Your task to perform on an android device: turn on data saver in the chrome app Image 0: 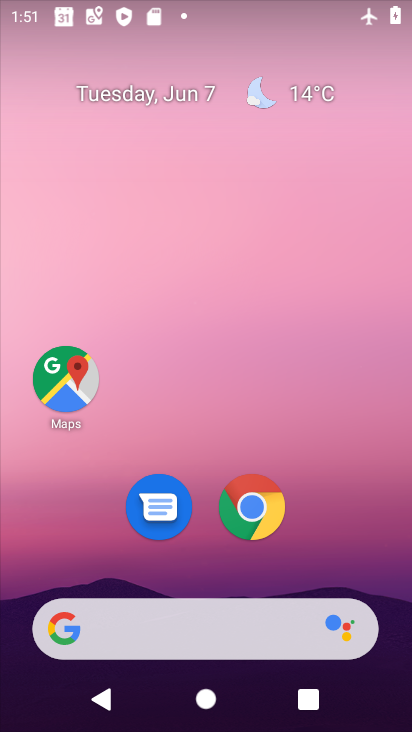
Step 0: click (249, 507)
Your task to perform on an android device: turn on data saver in the chrome app Image 1: 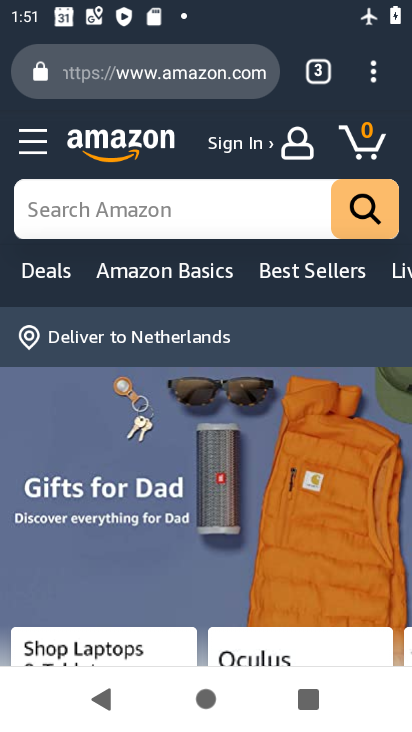
Step 1: click (372, 73)
Your task to perform on an android device: turn on data saver in the chrome app Image 2: 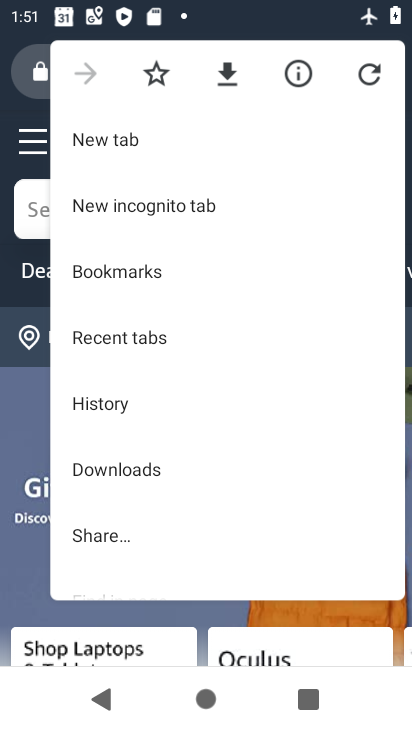
Step 2: drag from (200, 514) to (231, 162)
Your task to perform on an android device: turn on data saver in the chrome app Image 3: 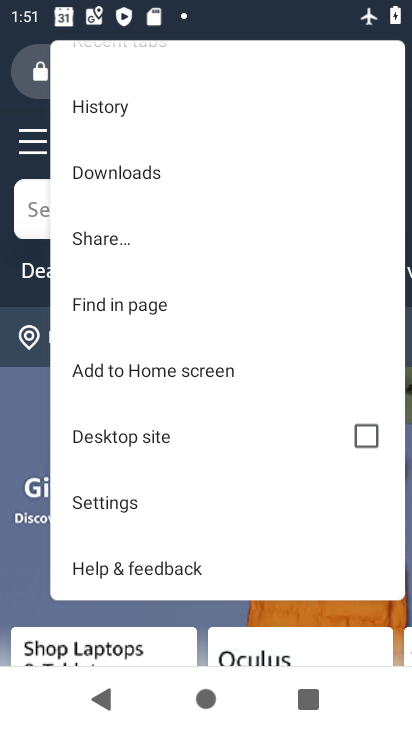
Step 3: click (102, 506)
Your task to perform on an android device: turn on data saver in the chrome app Image 4: 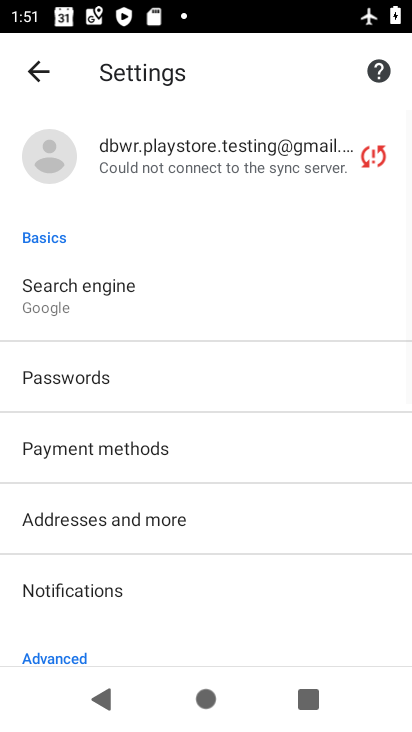
Step 4: drag from (204, 615) to (211, 247)
Your task to perform on an android device: turn on data saver in the chrome app Image 5: 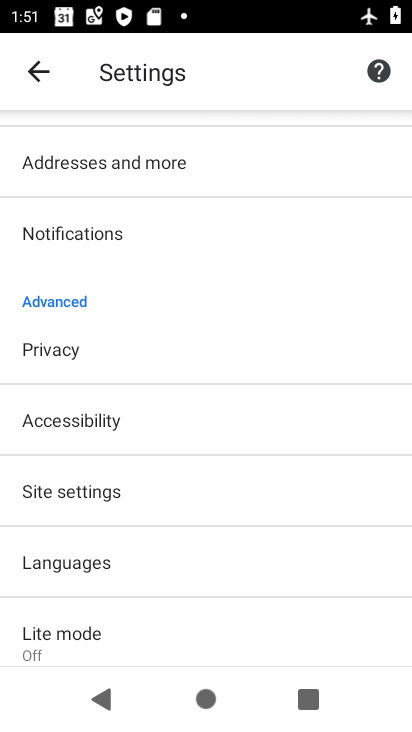
Step 5: drag from (157, 598) to (139, 392)
Your task to perform on an android device: turn on data saver in the chrome app Image 6: 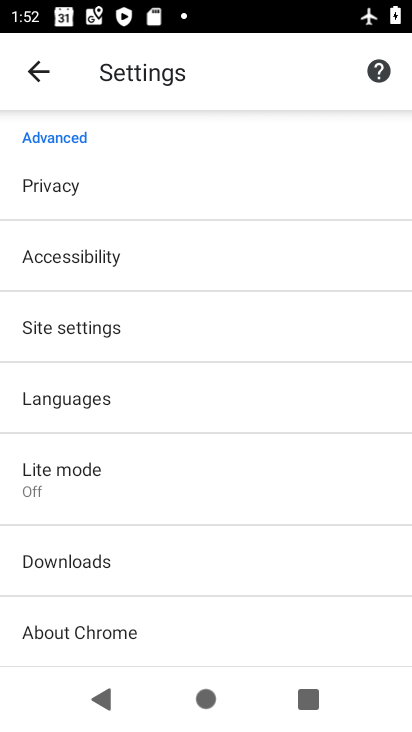
Step 6: click (50, 470)
Your task to perform on an android device: turn on data saver in the chrome app Image 7: 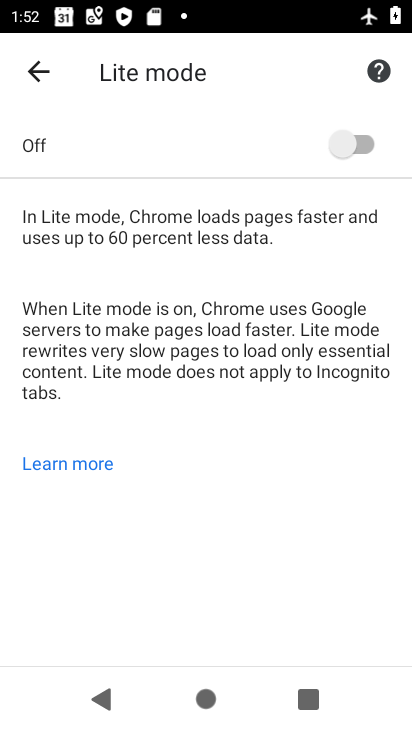
Step 7: click (368, 140)
Your task to perform on an android device: turn on data saver in the chrome app Image 8: 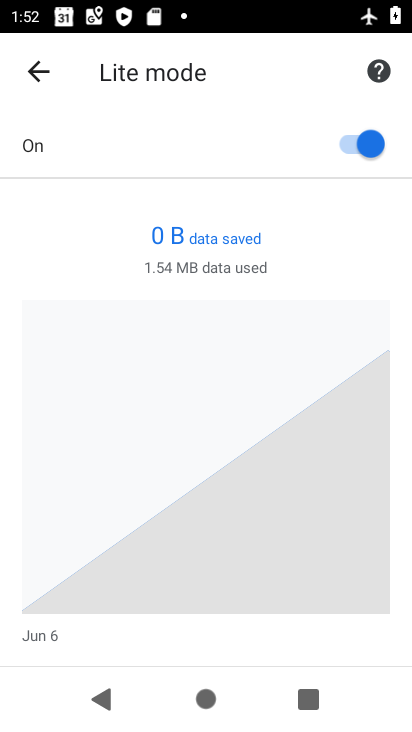
Step 8: task complete